Your task to perform on an android device: Go to location settings Image 0: 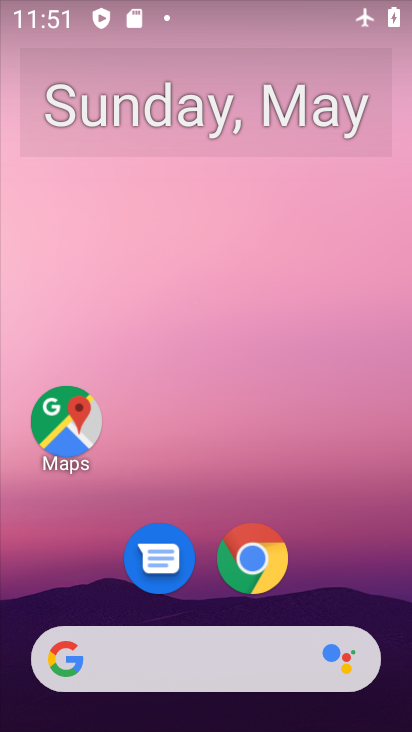
Step 0: drag from (371, 592) to (373, 164)
Your task to perform on an android device: Go to location settings Image 1: 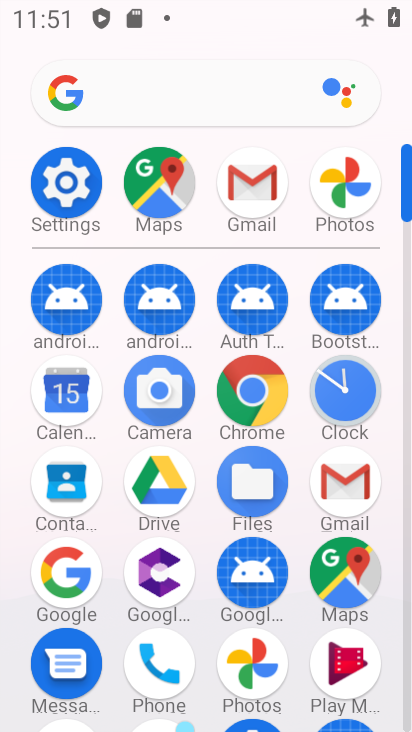
Step 1: click (77, 217)
Your task to perform on an android device: Go to location settings Image 2: 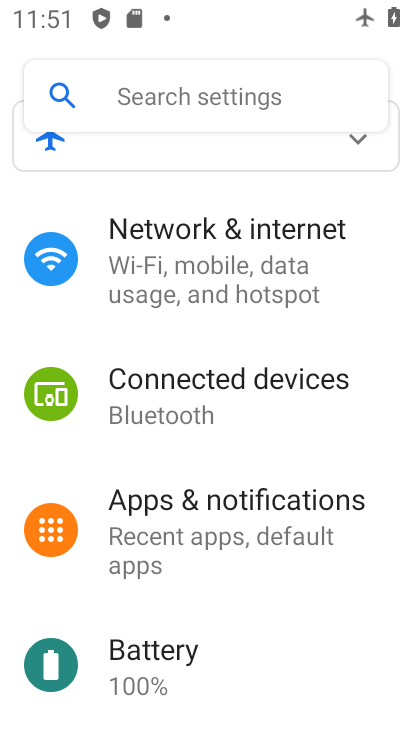
Step 2: drag from (326, 620) to (336, 439)
Your task to perform on an android device: Go to location settings Image 3: 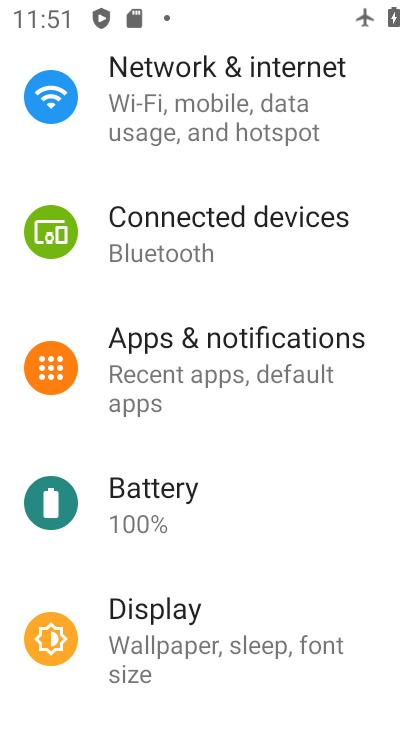
Step 3: drag from (354, 664) to (351, 506)
Your task to perform on an android device: Go to location settings Image 4: 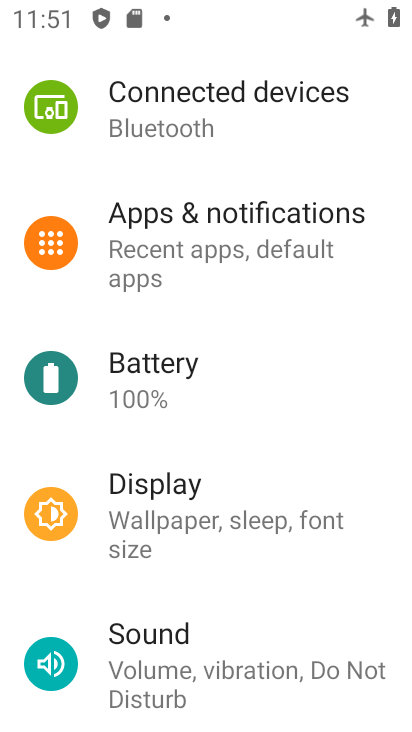
Step 4: drag from (308, 618) to (310, 423)
Your task to perform on an android device: Go to location settings Image 5: 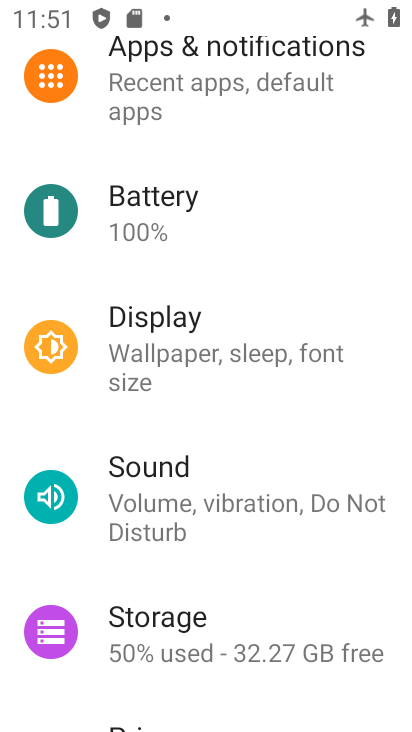
Step 5: drag from (289, 694) to (293, 538)
Your task to perform on an android device: Go to location settings Image 6: 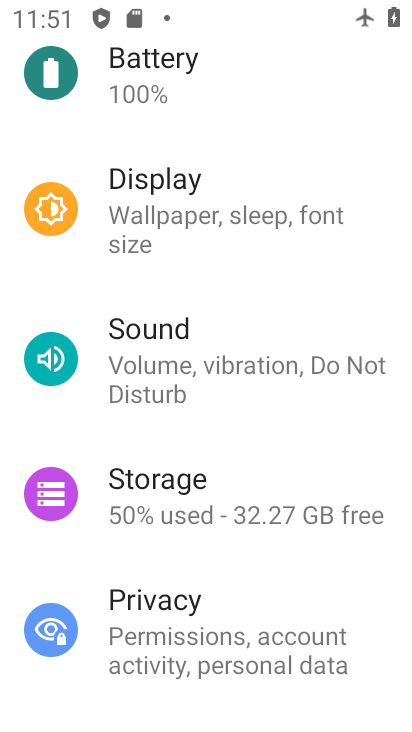
Step 6: drag from (359, 696) to (362, 500)
Your task to perform on an android device: Go to location settings Image 7: 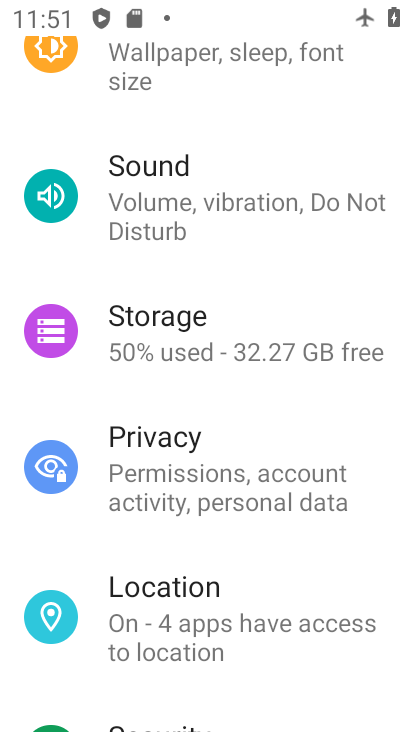
Step 7: click (267, 622)
Your task to perform on an android device: Go to location settings Image 8: 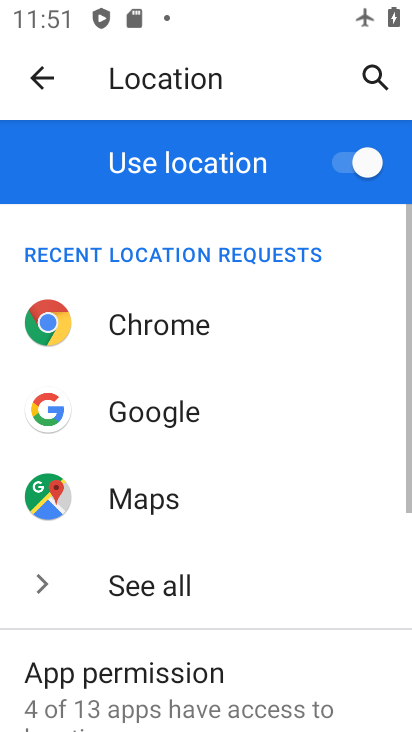
Step 8: task complete